Your task to perform on an android device: add a contact in the contacts app Image 0: 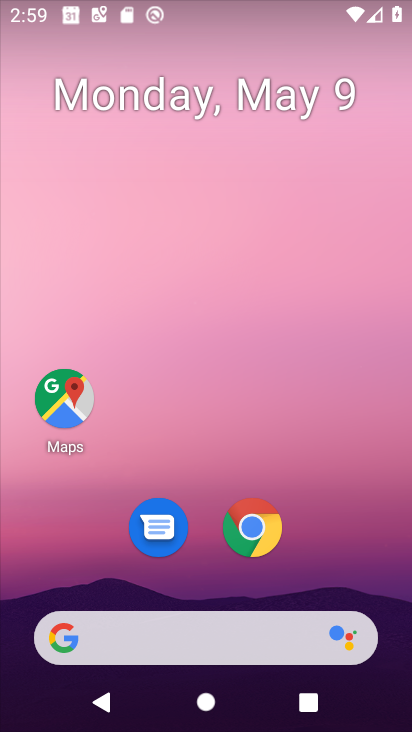
Step 0: drag from (256, 581) to (306, 69)
Your task to perform on an android device: add a contact in the contacts app Image 1: 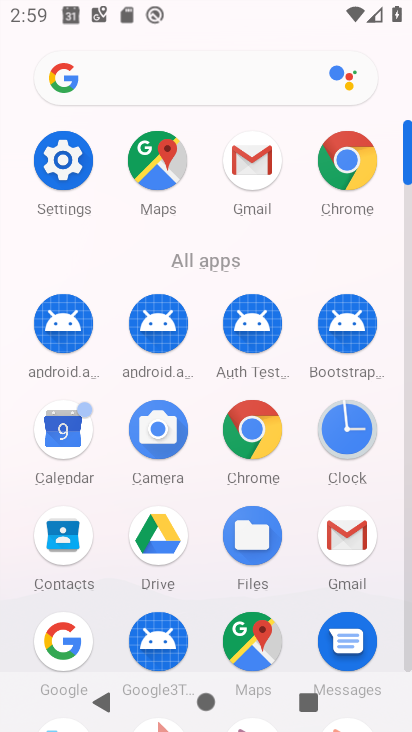
Step 1: drag from (296, 470) to (320, 247)
Your task to perform on an android device: add a contact in the contacts app Image 2: 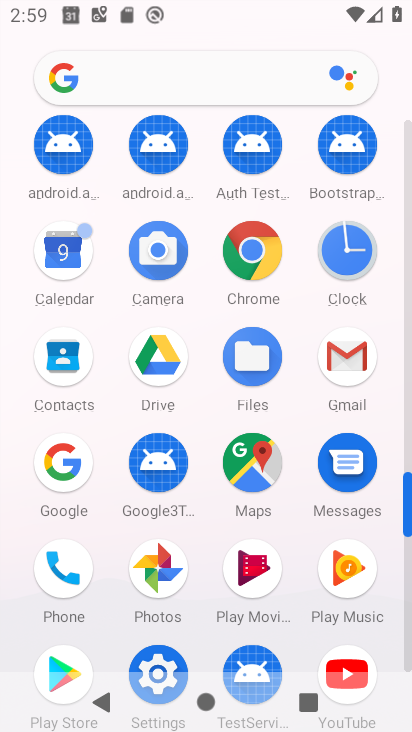
Step 2: click (63, 357)
Your task to perform on an android device: add a contact in the contacts app Image 3: 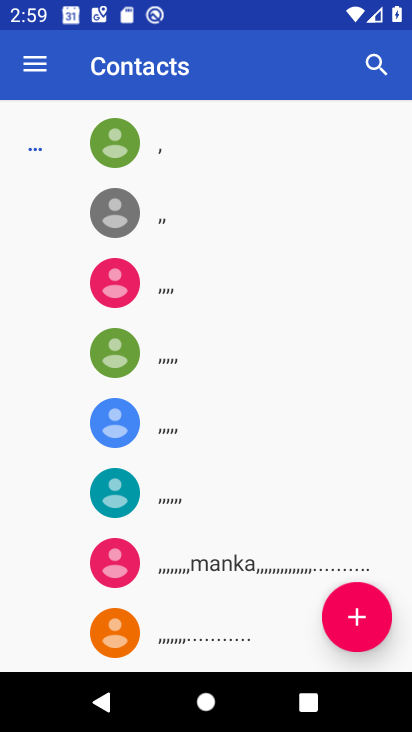
Step 3: click (352, 637)
Your task to perform on an android device: add a contact in the contacts app Image 4: 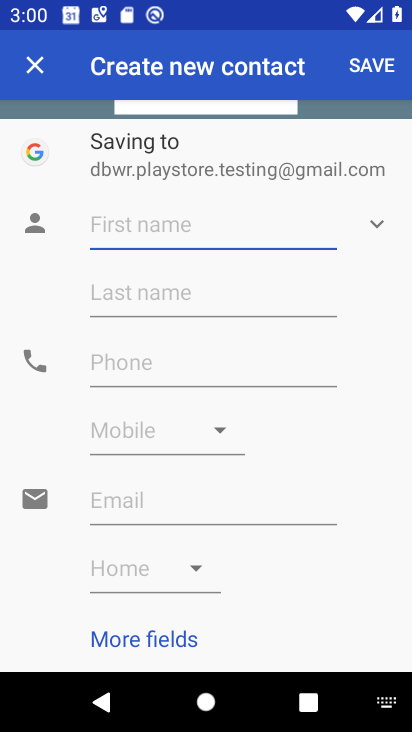
Step 4: type "uhbb"
Your task to perform on an android device: add a contact in the contacts app Image 5: 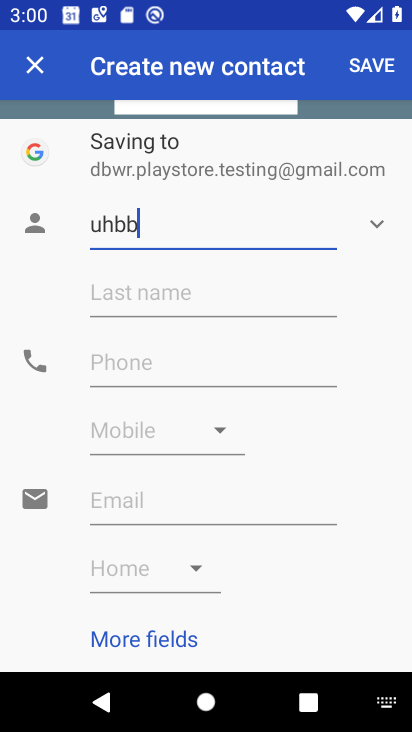
Step 5: click (170, 369)
Your task to perform on an android device: add a contact in the contacts app Image 6: 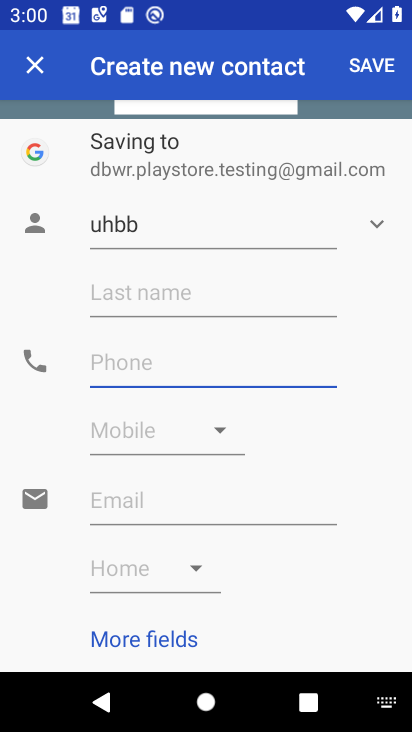
Step 6: type "0979777979079"
Your task to perform on an android device: add a contact in the contacts app Image 7: 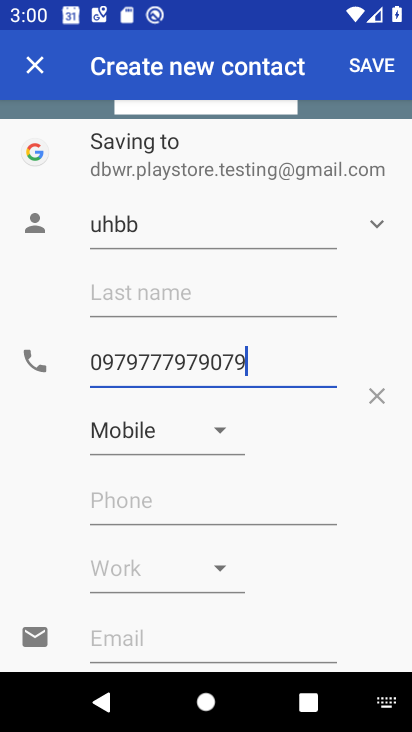
Step 7: click (364, 73)
Your task to perform on an android device: add a contact in the contacts app Image 8: 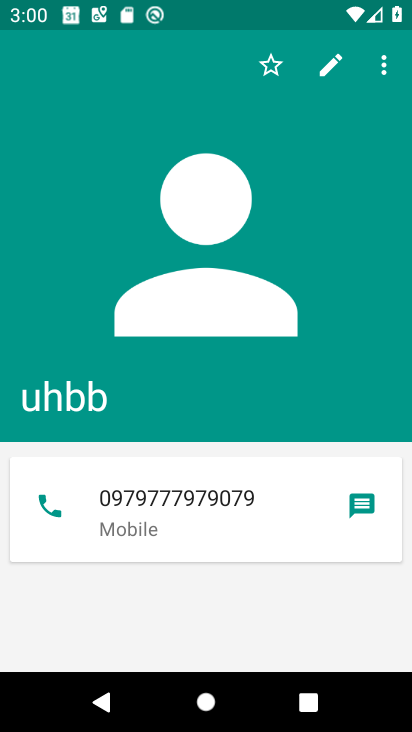
Step 8: task complete